Your task to perform on an android device: check google app version Image 0: 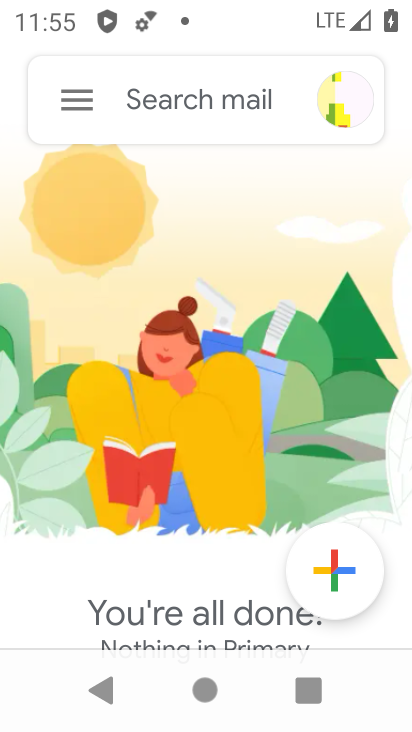
Step 0: press home button
Your task to perform on an android device: check google app version Image 1: 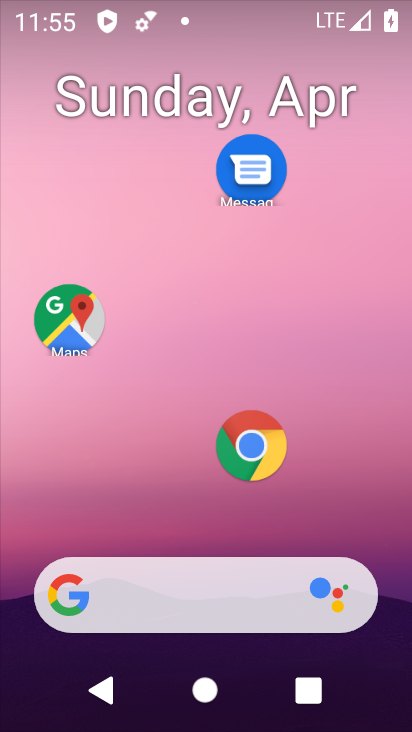
Step 1: drag from (159, 561) to (237, 180)
Your task to perform on an android device: check google app version Image 2: 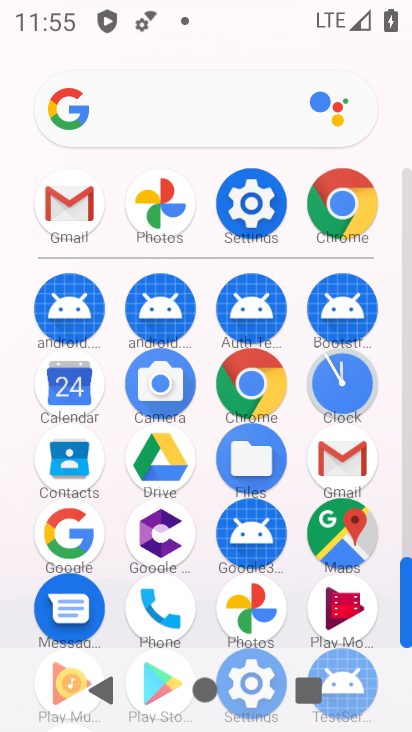
Step 2: drag from (75, 538) to (88, 468)
Your task to perform on an android device: check google app version Image 3: 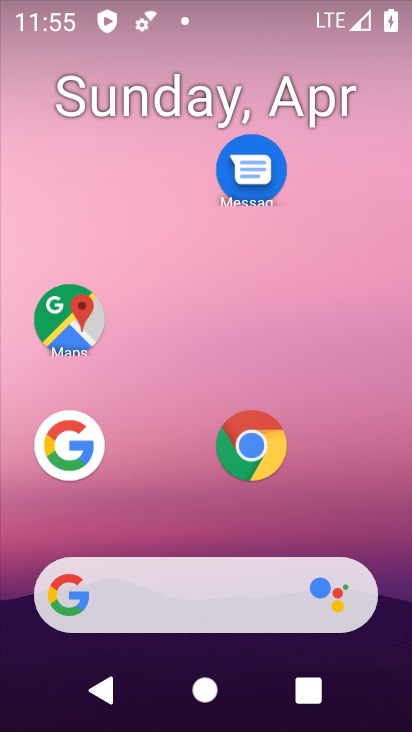
Step 3: drag from (74, 447) to (211, 267)
Your task to perform on an android device: check google app version Image 4: 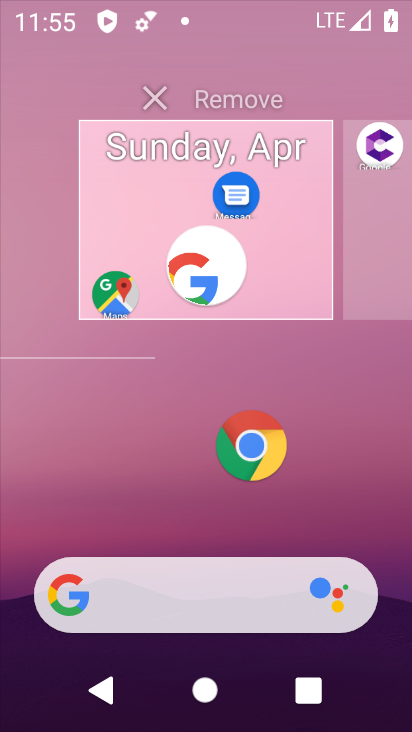
Step 4: click (276, 161)
Your task to perform on an android device: check google app version Image 5: 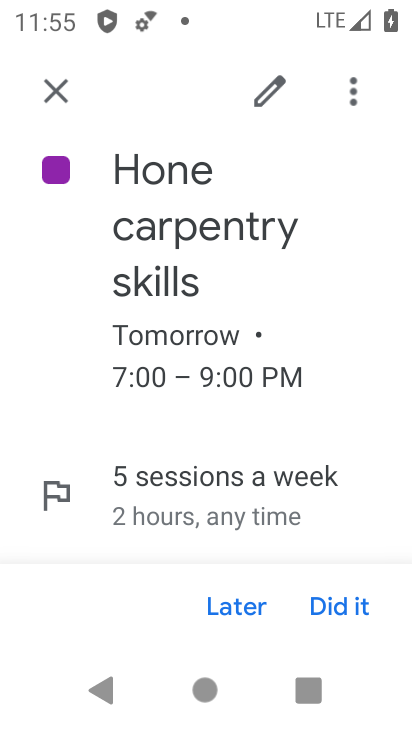
Step 5: click (56, 98)
Your task to perform on an android device: check google app version Image 6: 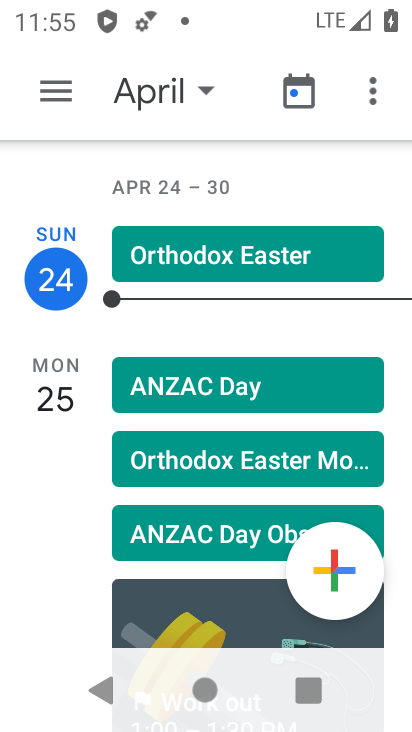
Step 6: press back button
Your task to perform on an android device: check google app version Image 7: 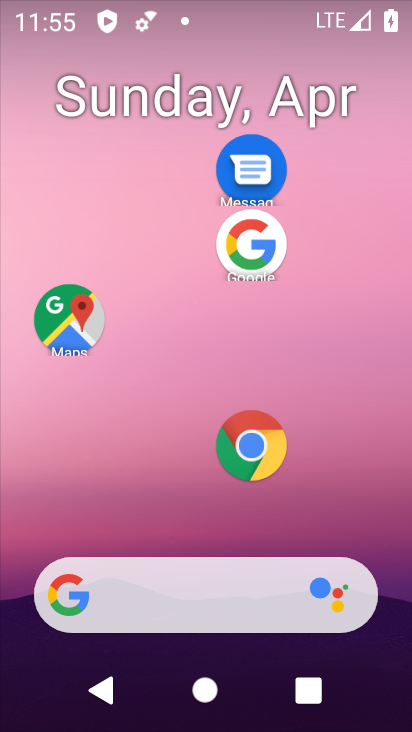
Step 7: click (255, 248)
Your task to perform on an android device: check google app version Image 8: 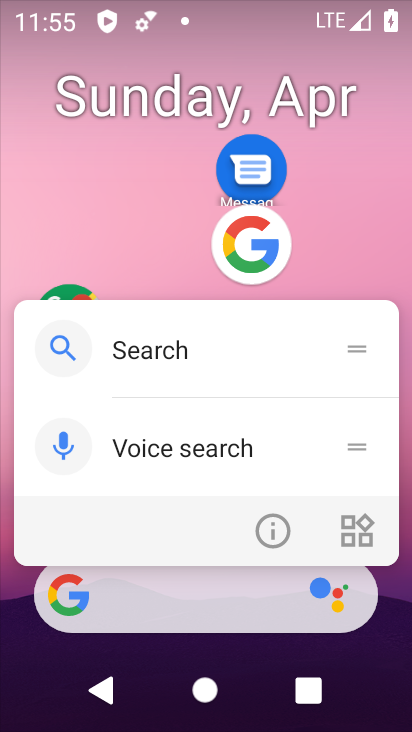
Step 8: click (268, 524)
Your task to perform on an android device: check google app version Image 9: 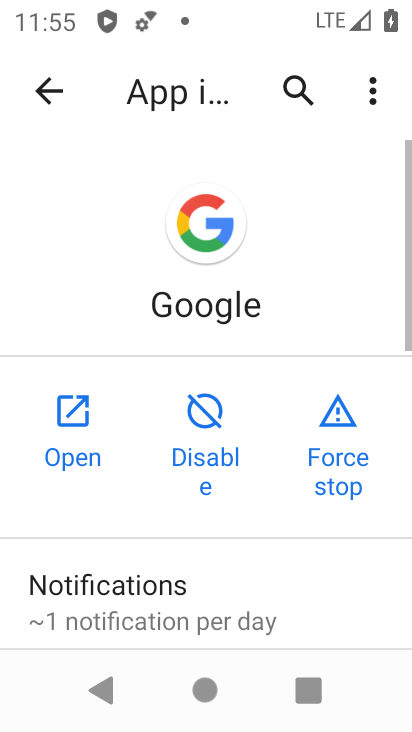
Step 9: drag from (192, 513) to (338, 178)
Your task to perform on an android device: check google app version Image 10: 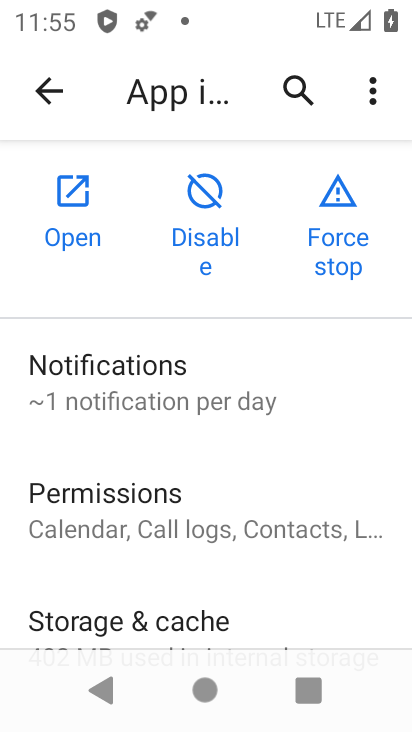
Step 10: drag from (172, 567) to (299, 64)
Your task to perform on an android device: check google app version Image 11: 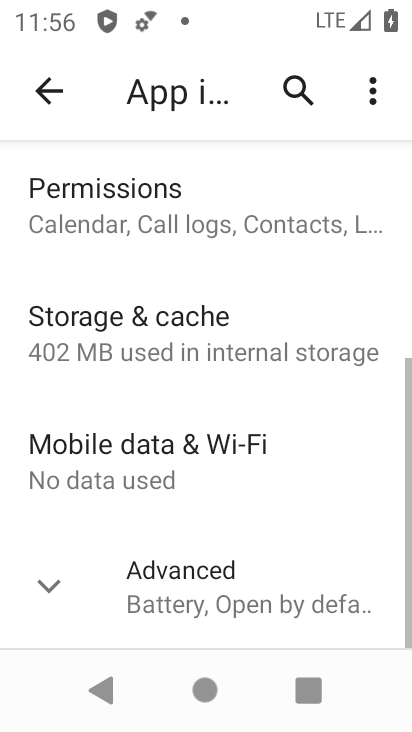
Step 11: click (156, 571)
Your task to perform on an android device: check google app version Image 12: 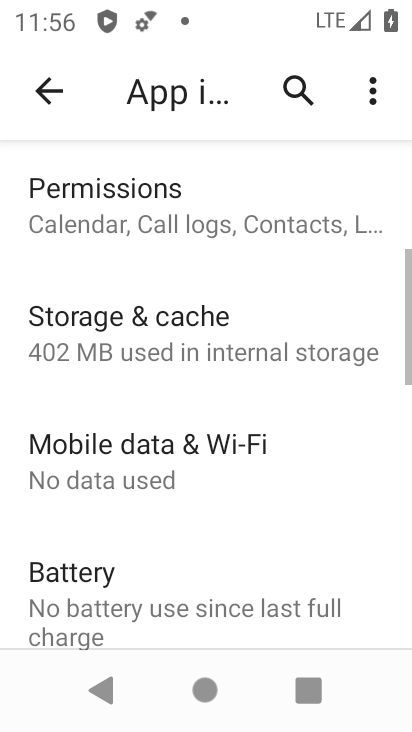
Step 12: task complete